Your task to perform on an android device: turn off location Image 0: 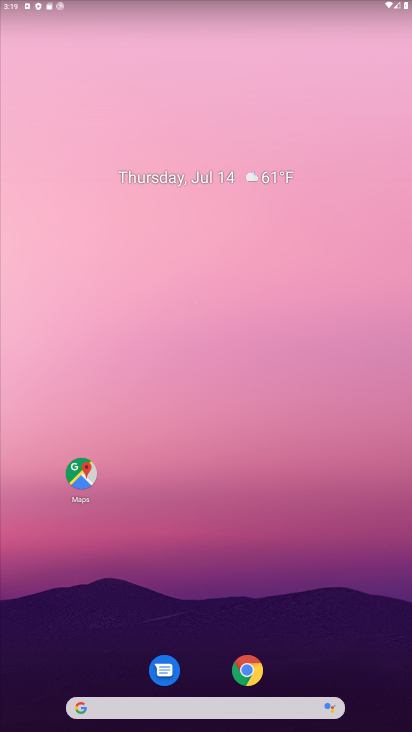
Step 0: drag from (242, 558) to (238, 24)
Your task to perform on an android device: turn off location Image 1: 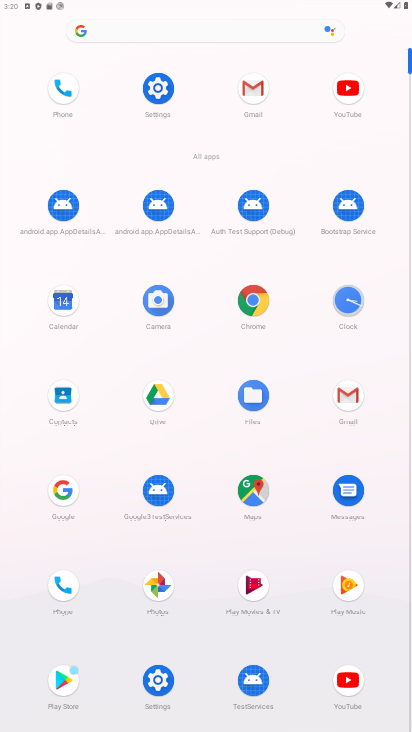
Step 1: click (161, 674)
Your task to perform on an android device: turn off location Image 2: 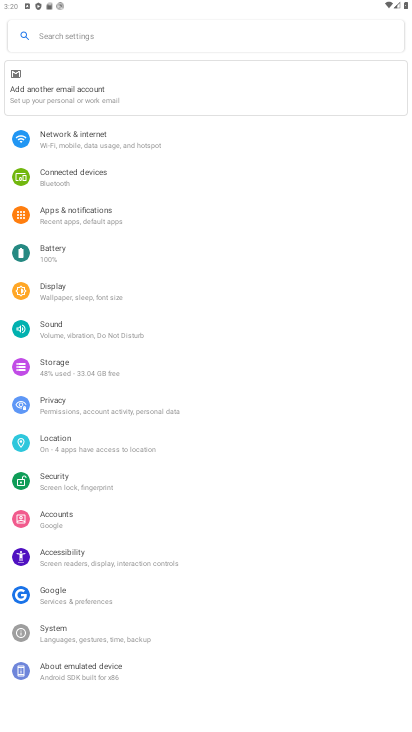
Step 2: click (59, 434)
Your task to perform on an android device: turn off location Image 3: 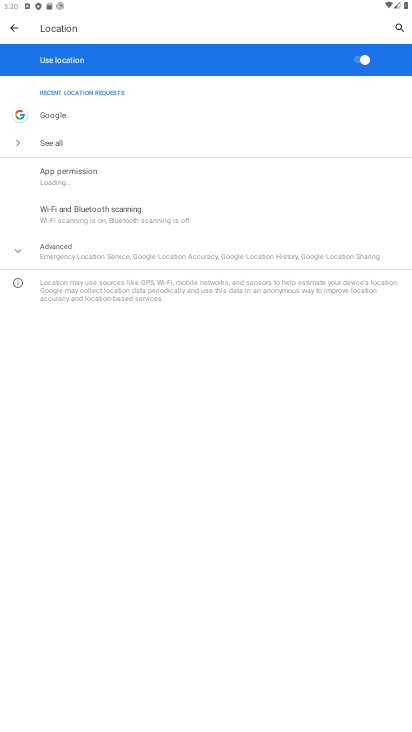
Step 3: click (358, 64)
Your task to perform on an android device: turn off location Image 4: 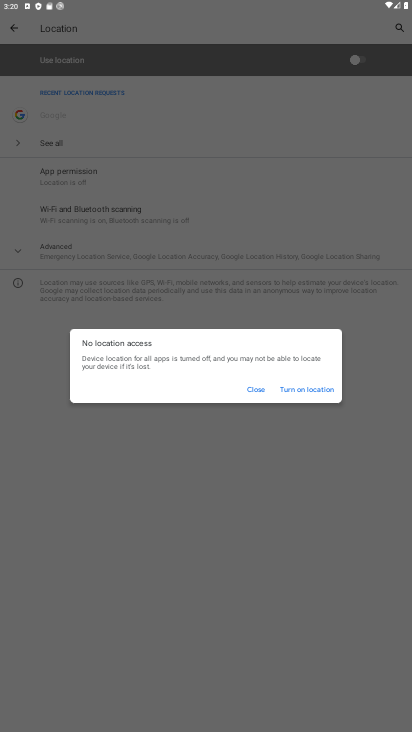
Step 4: click (263, 395)
Your task to perform on an android device: turn off location Image 5: 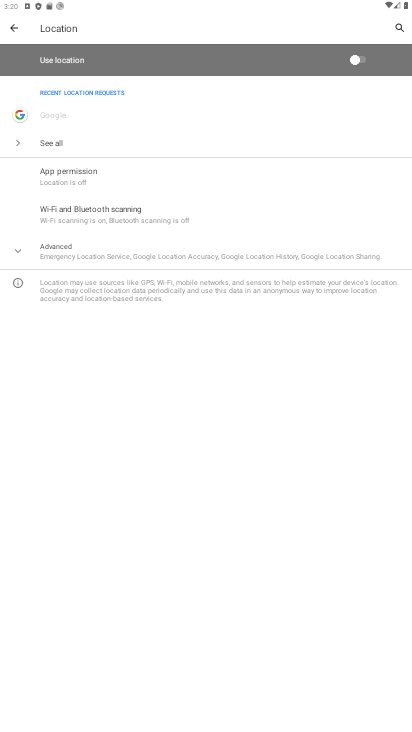
Step 5: task complete